Your task to perform on an android device: clear history in the chrome app Image 0: 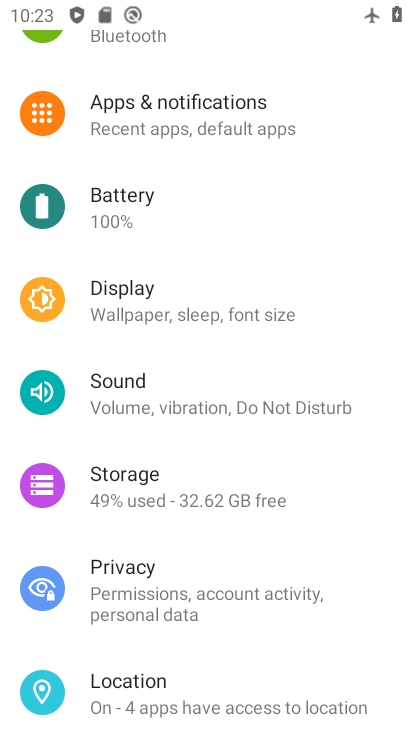
Step 0: press back button
Your task to perform on an android device: clear history in the chrome app Image 1: 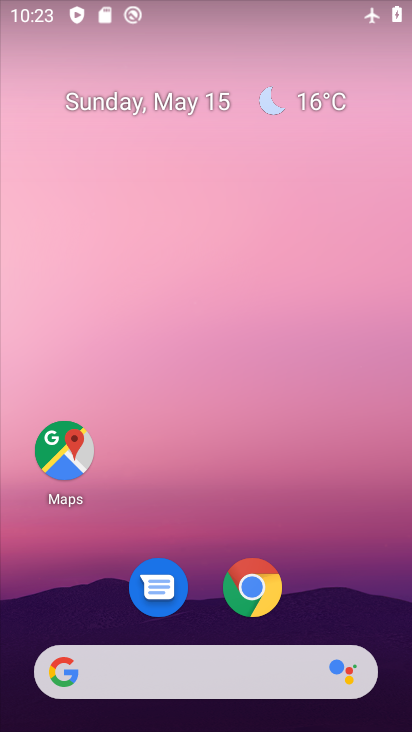
Step 1: drag from (295, 211) to (252, 0)
Your task to perform on an android device: clear history in the chrome app Image 2: 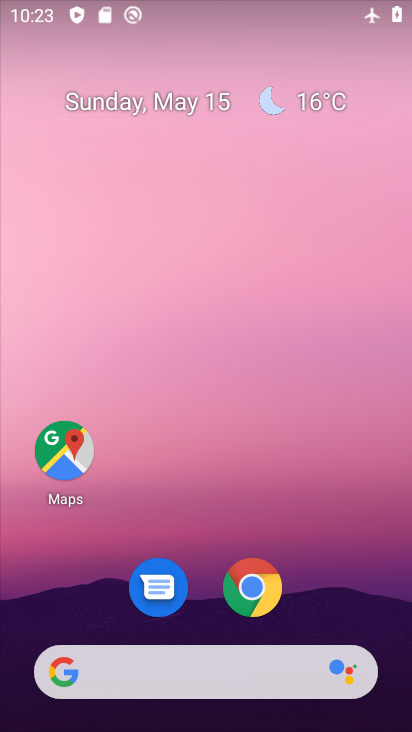
Step 2: drag from (296, 540) to (296, 27)
Your task to perform on an android device: clear history in the chrome app Image 3: 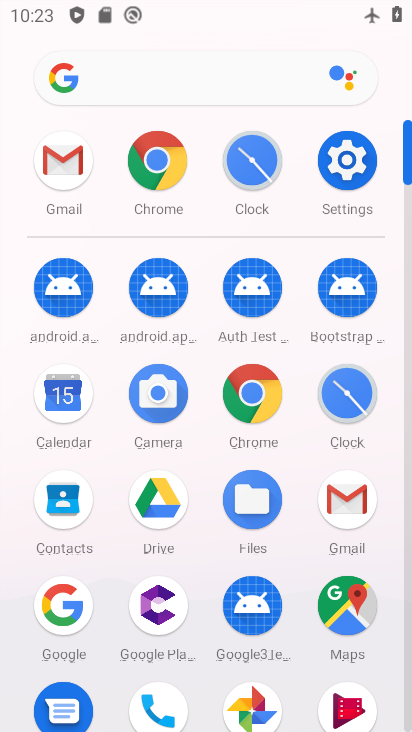
Step 3: drag from (7, 555) to (20, 305)
Your task to perform on an android device: clear history in the chrome app Image 4: 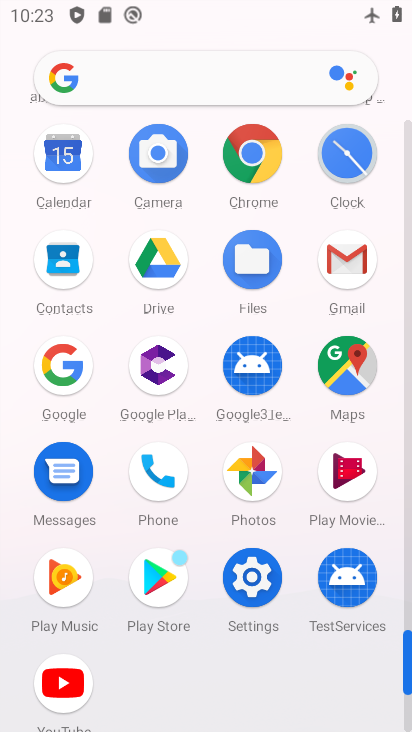
Step 4: click (249, 149)
Your task to perform on an android device: clear history in the chrome app Image 5: 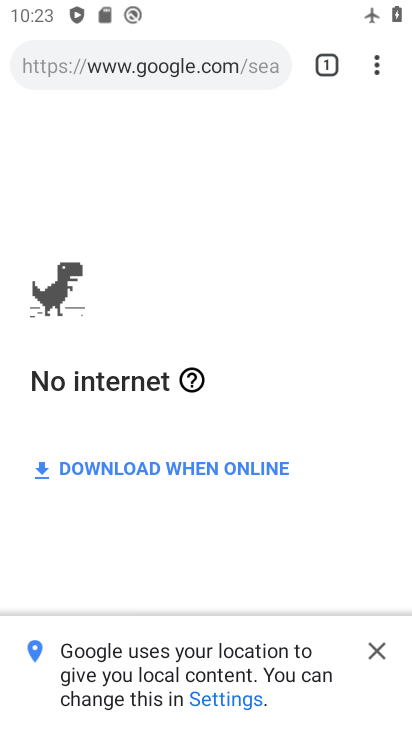
Step 5: drag from (385, 73) to (133, 360)
Your task to perform on an android device: clear history in the chrome app Image 6: 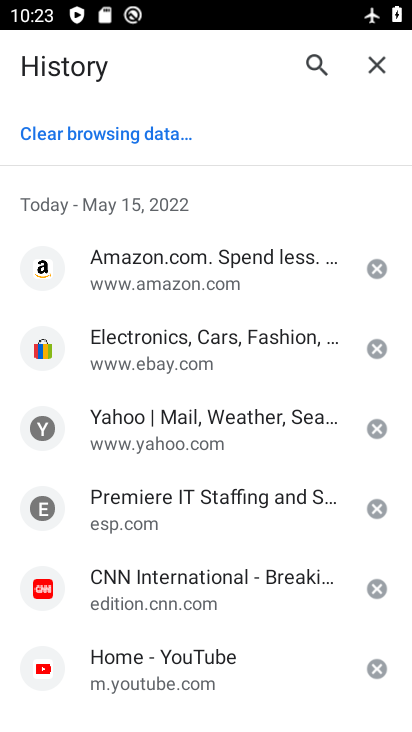
Step 6: click (122, 140)
Your task to perform on an android device: clear history in the chrome app Image 7: 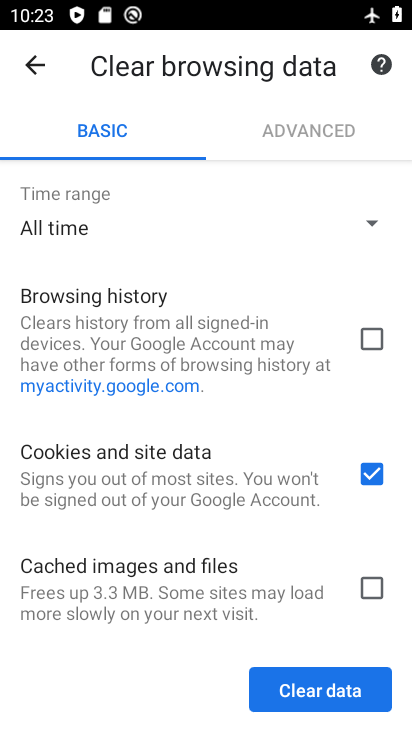
Step 7: click (304, 686)
Your task to perform on an android device: clear history in the chrome app Image 8: 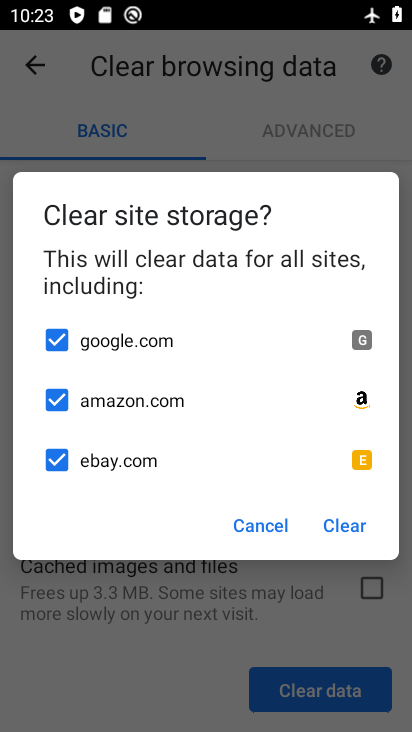
Step 8: click (356, 518)
Your task to perform on an android device: clear history in the chrome app Image 9: 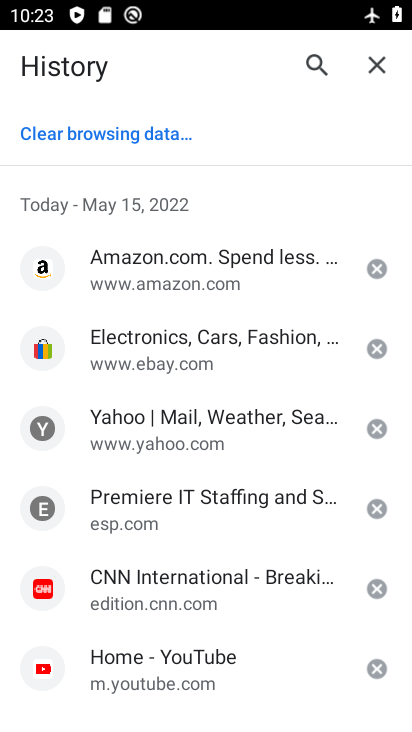
Step 9: task complete